Your task to perform on an android device: set an alarm Image 0: 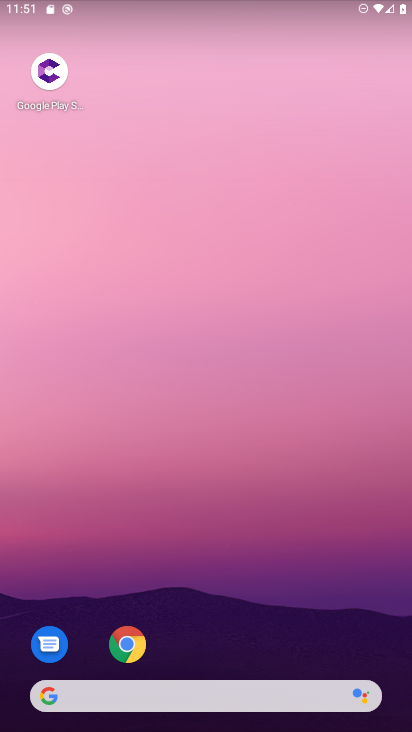
Step 0: drag from (222, 624) to (180, 205)
Your task to perform on an android device: set an alarm Image 1: 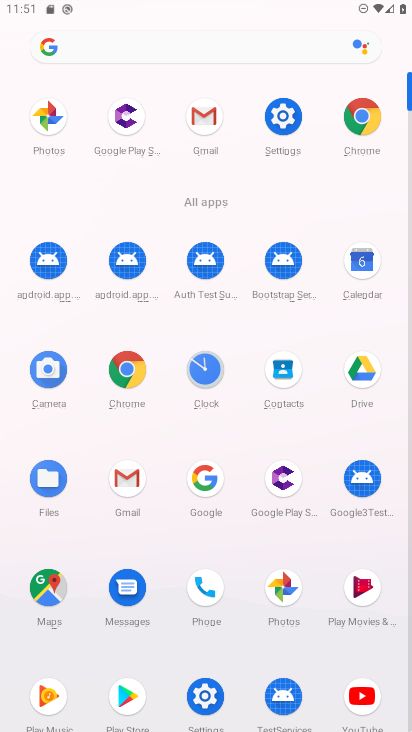
Step 1: click (215, 368)
Your task to perform on an android device: set an alarm Image 2: 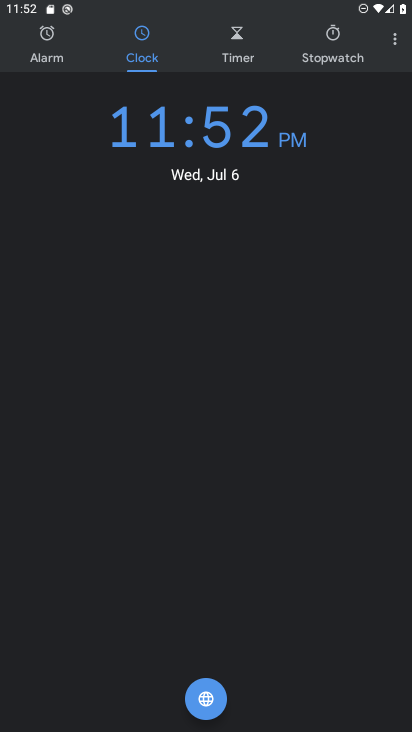
Step 2: click (19, 54)
Your task to perform on an android device: set an alarm Image 3: 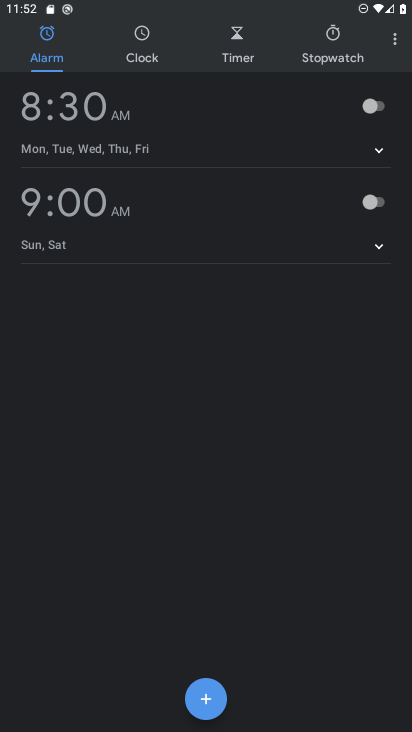
Step 3: click (381, 99)
Your task to perform on an android device: set an alarm Image 4: 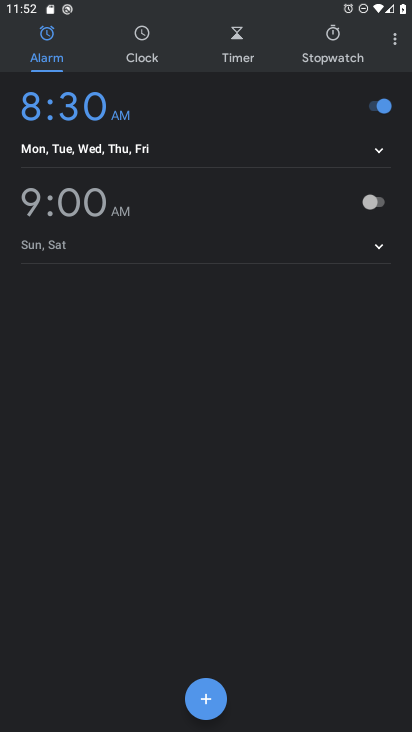
Step 4: task complete